Your task to perform on an android device: check battery use Image 0: 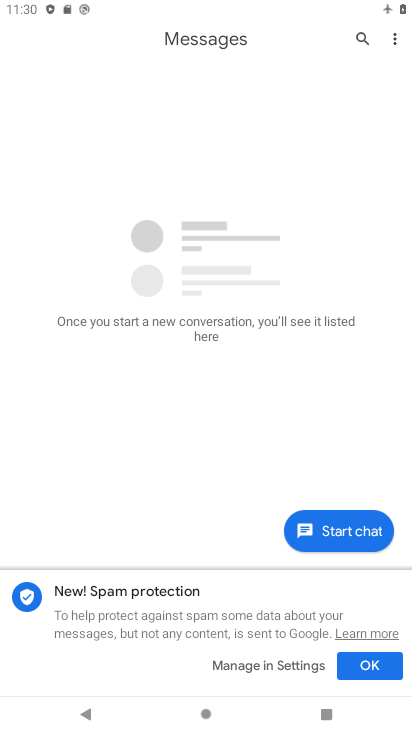
Step 0: press home button
Your task to perform on an android device: check battery use Image 1: 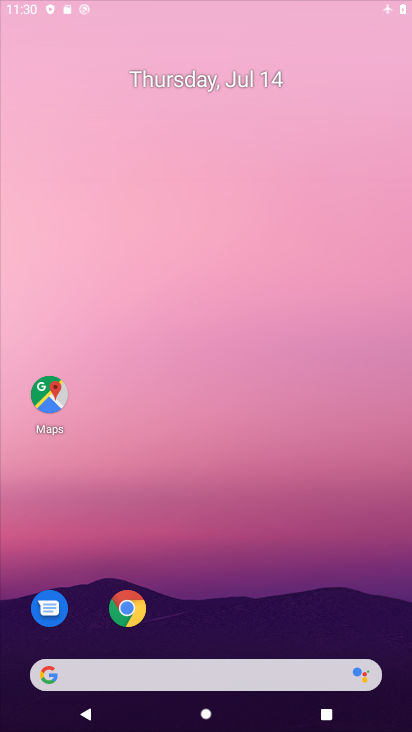
Step 1: drag from (264, 642) to (306, 8)
Your task to perform on an android device: check battery use Image 2: 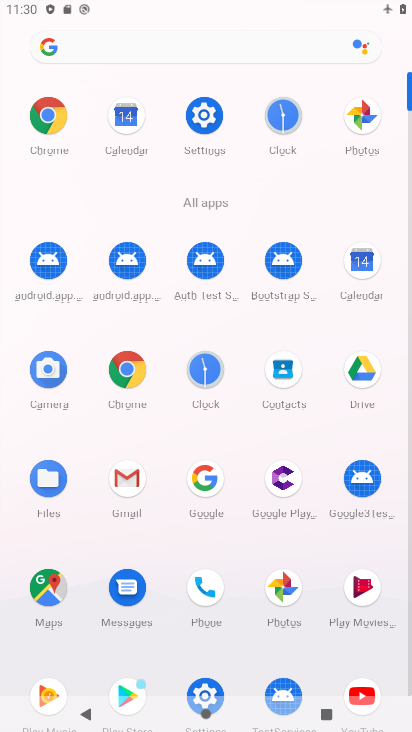
Step 2: click (199, 111)
Your task to perform on an android device: check battery use Image 3: 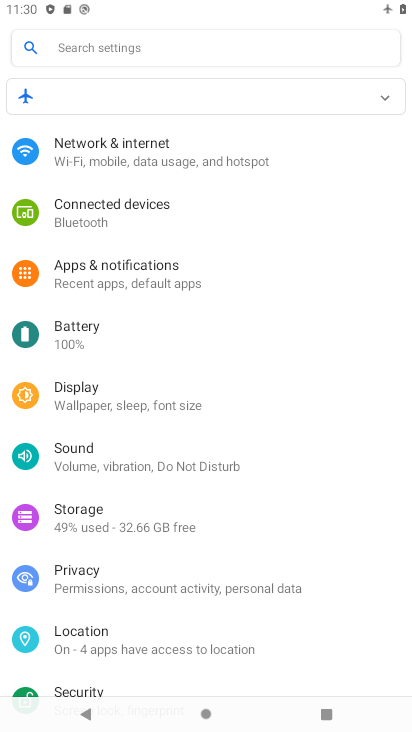
Step 3: click (92, 338)
Your task to perform on an android device: check battery use Image 4: 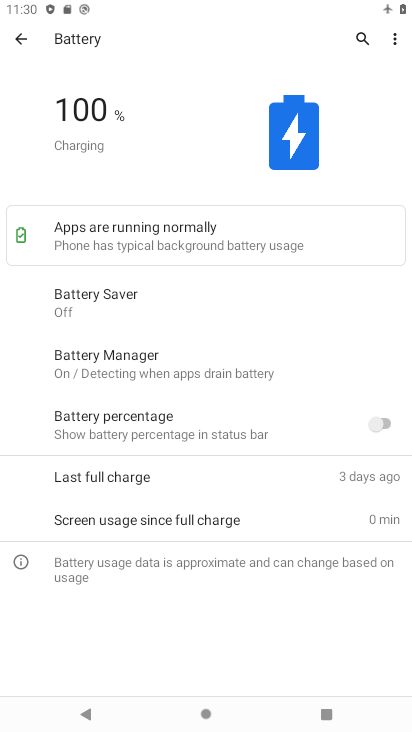
Step 4: task complete